Your task to perform on an android device: turn off picture-in-picture Image 0: 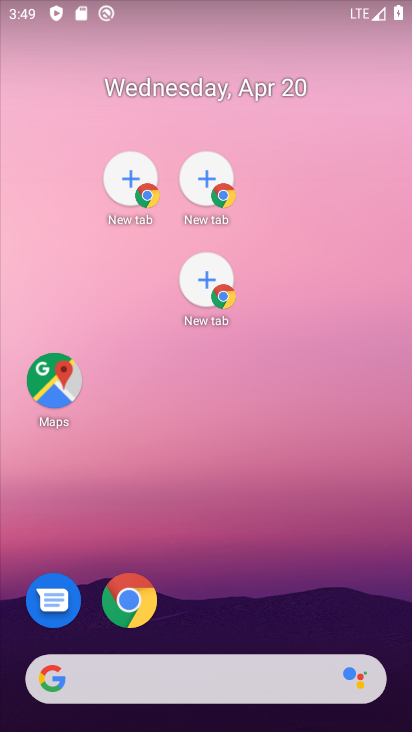
Step 0: click (205, 104)
Your task to perform on an android device: turn off picture-in-picture Image 1: 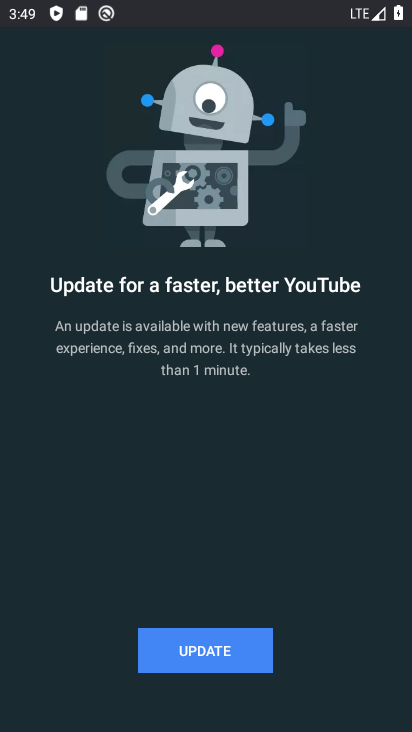
Step 1: press home button
Your task to perform on an android device: turn off picture-in-picture Image 2: 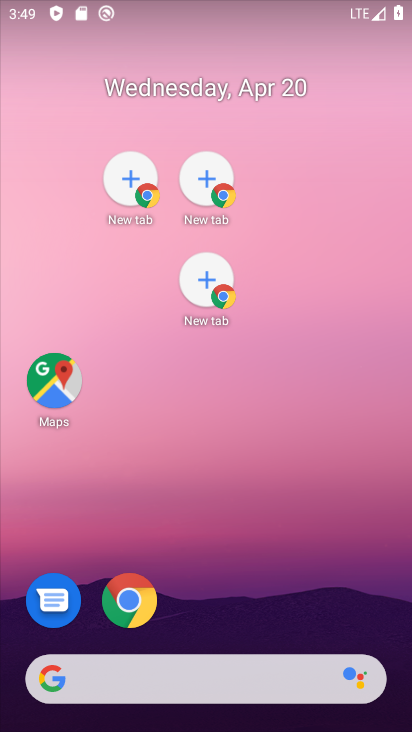
Step 2: drag from (116, 606) to (263, 401)
Your task to perform on an android device: turn off picture-in-picture Image 3: 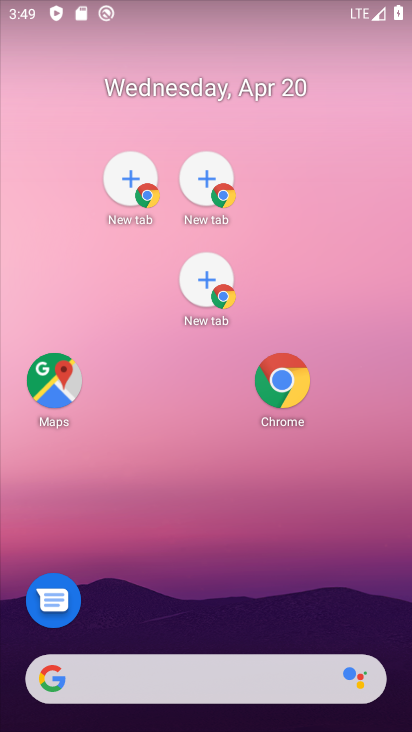
Step 3: drag from (272, 391) to (225, 181)
Your task to perform on an android device: turn off picture-in-picture Image 4: 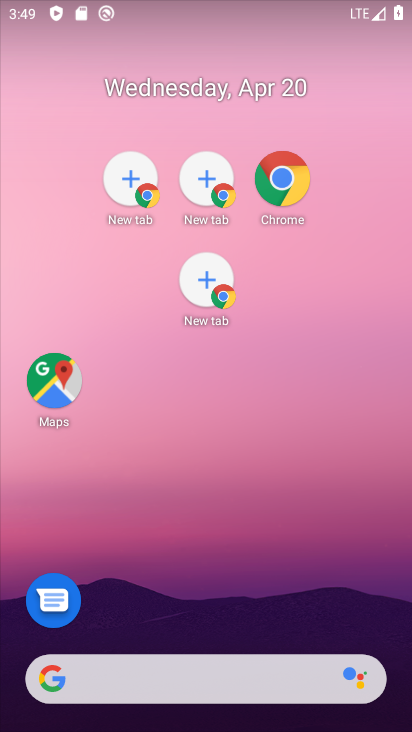
Step 4: drag from (292, 175) to (229, 373)
Your task to perform on an android device: turn off picture-in-picture Image 5: 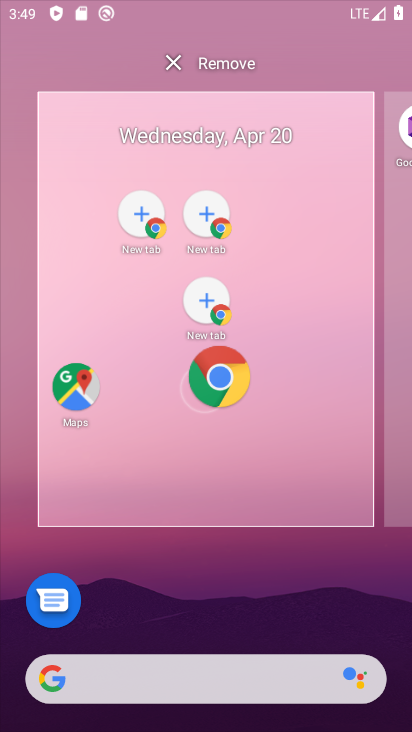
Step 5: click (229, 373)
Your task to perform on an android device: turn off picture-in-picture Image 6: 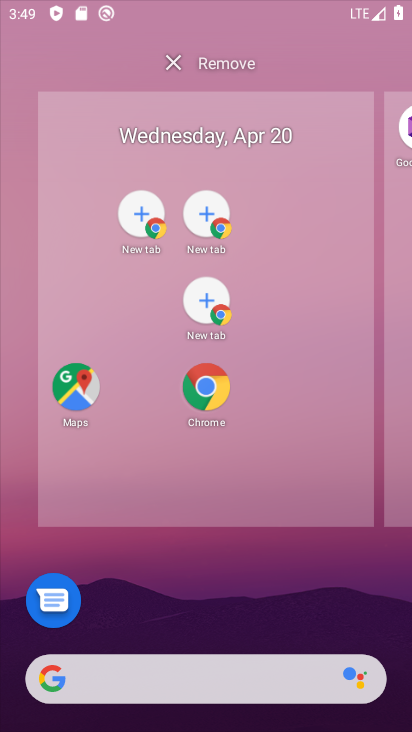
Step 6: click (229, 373)
Your task to perform on an android device: turn off picture-in-picture Image 7: 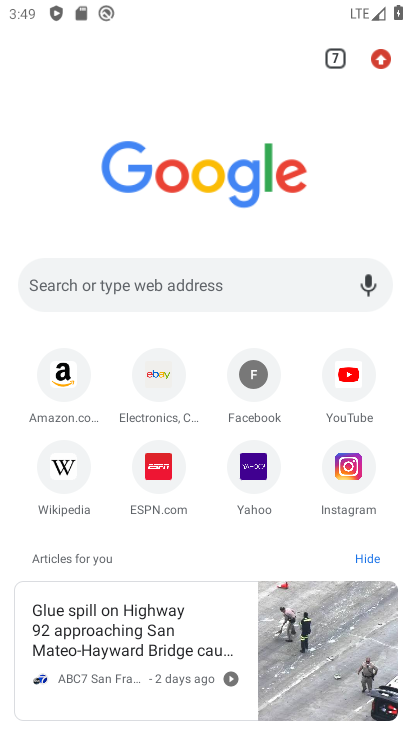
Step 7: press home button
Your task to perform on an android device: turn off picture-in-picture Image 8: 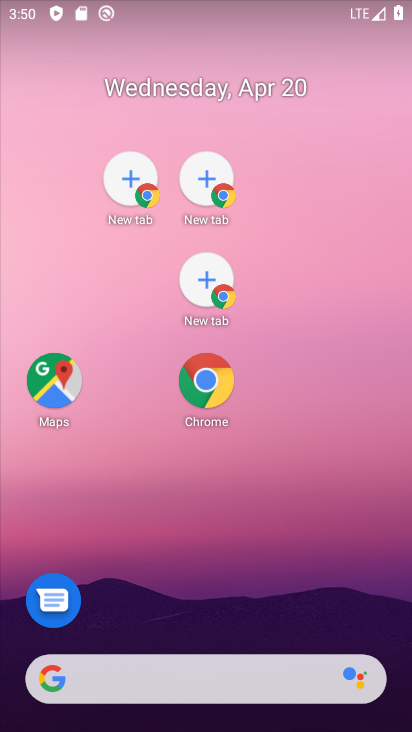
Step 8: click (189, 380)
Your task to perform on an android device: turn off picture-in-picture Image 9: 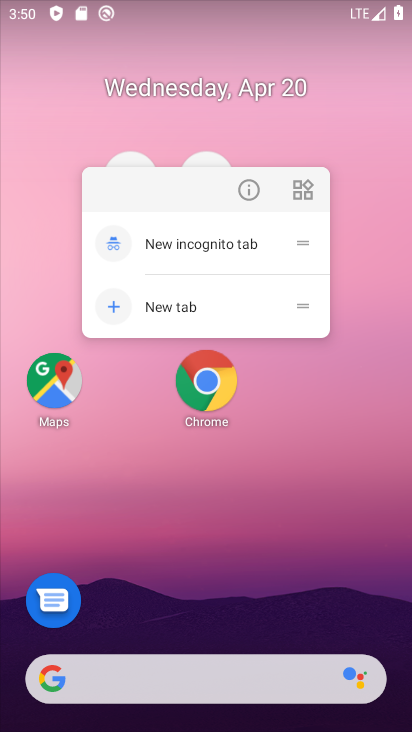
Step 9: click (205, 376)
Your task to perform on an android device: turn off picture-in-picture Image 10: 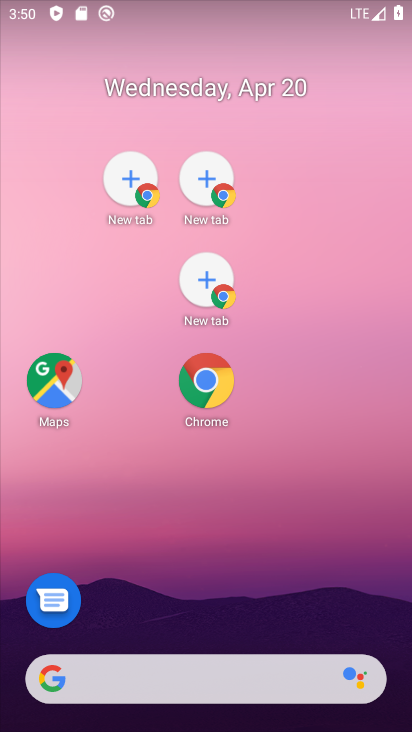
Step 10: drag from (212, 377) to (245, 188)
Your task to perform on an android device: turn off picture-in-picture Image 11: 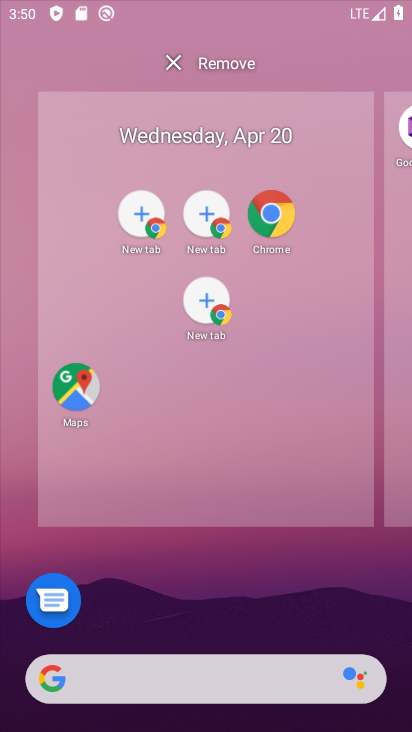
Step 11: click (245, 188)
Your task to perform on an android device: turn off picture-in-picture Image 12: 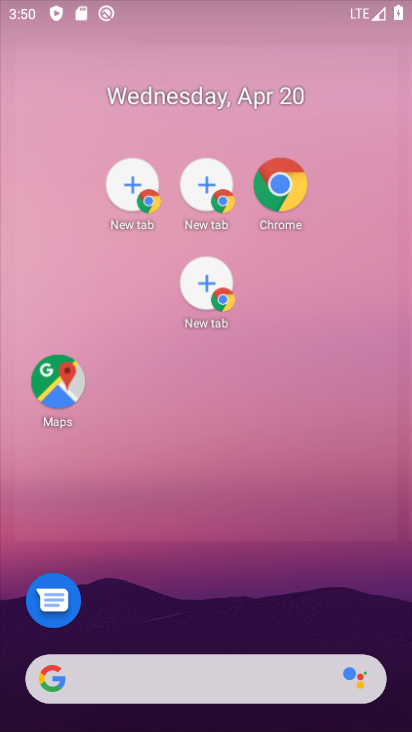
Step 12: click (244, 187)
Your task to perform on an android device: turn off picture-in-picture Image 13: 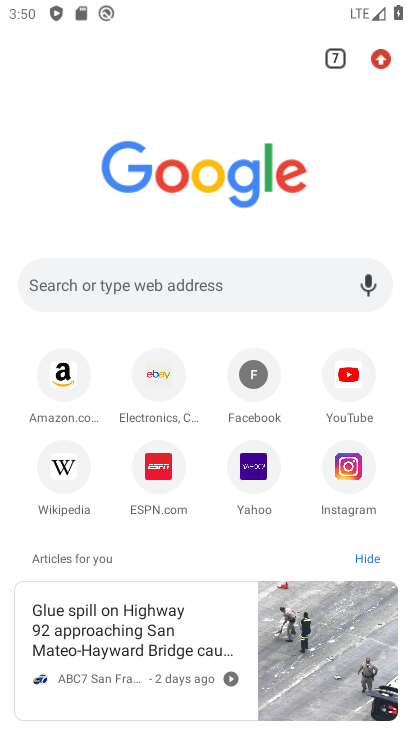
Step 13: press home button
Your task to perform on an android device: turn off picture-in-picture Image 14: 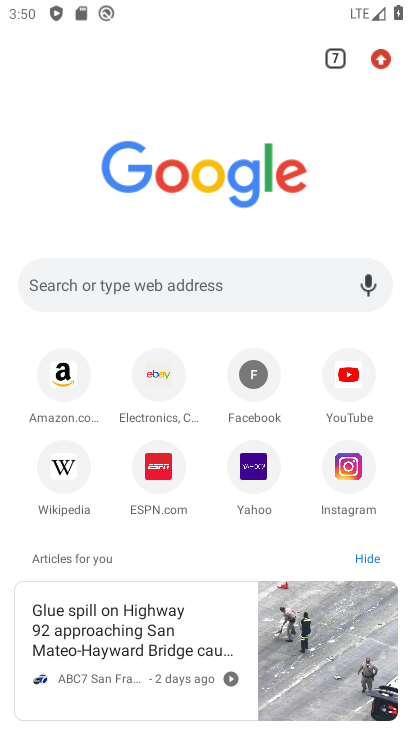
Step 14: press home button
Your task to perform on an android device: turn off picture-in-picture Image 15: 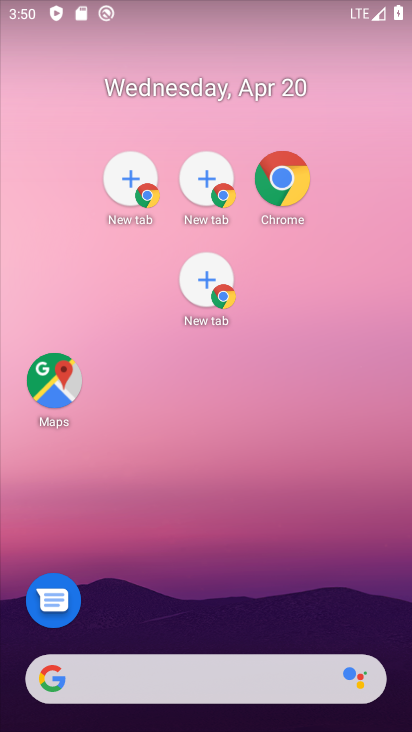
Step 15: drag from (273, 176) to (247, 369)
Your task to perform on an android device: turn off picture-in-picture Image 16: 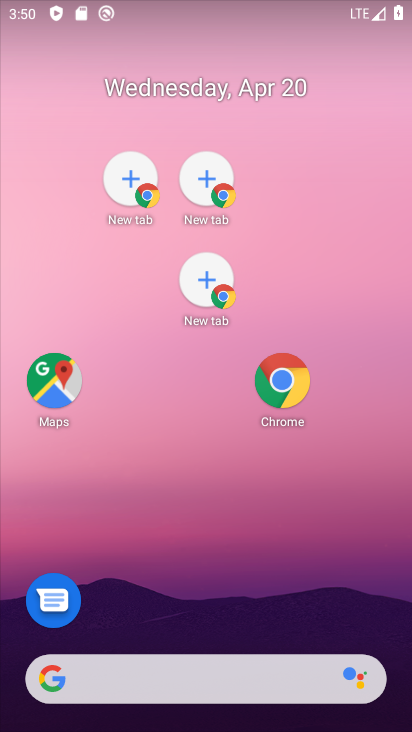
Step 16: click (276, 376)
Your task to perform on an android device: turn off picture-in-picture Image 17: 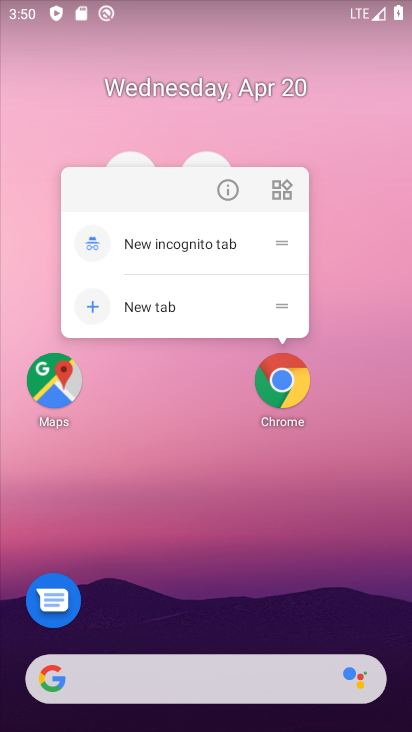
Step 17: click (227, 179)
Your task to perform on an android device: turn off picture-in-picture Image 18: 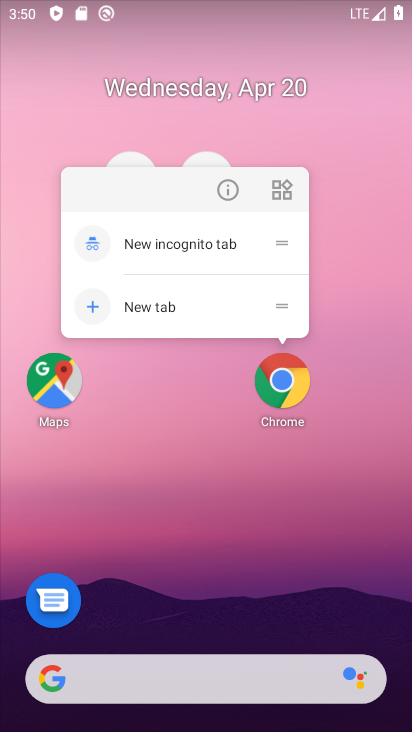
Step 18: click (228, 192)
Your task to perform on an android device: turn off picture-in-picture Image 19: 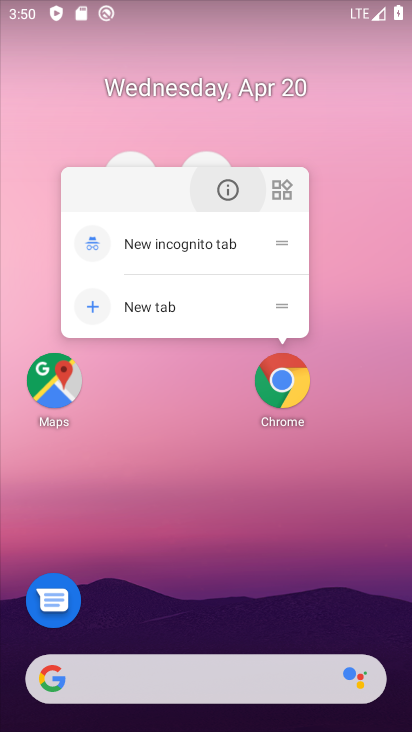
Step 19: click (228, 192)
Your task to perform on an android device: turn off picture-in-picture Image 20: 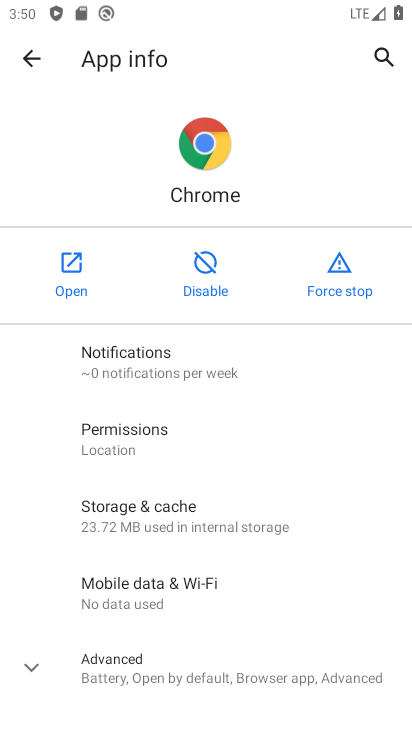
Step 20: click (113, 660)
Your task to perform on an android device: turn off picture-in-picture Image 21: 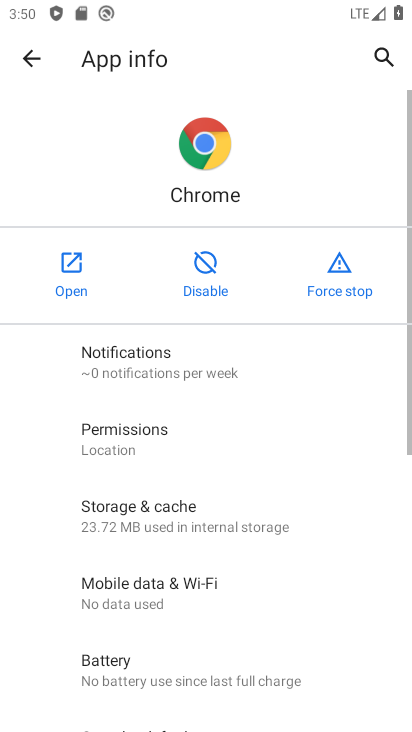
Step 21: drag from (199, 512) to (221, 186)
Your task to perform on an android device: turn off picture-in-picture Image 22: 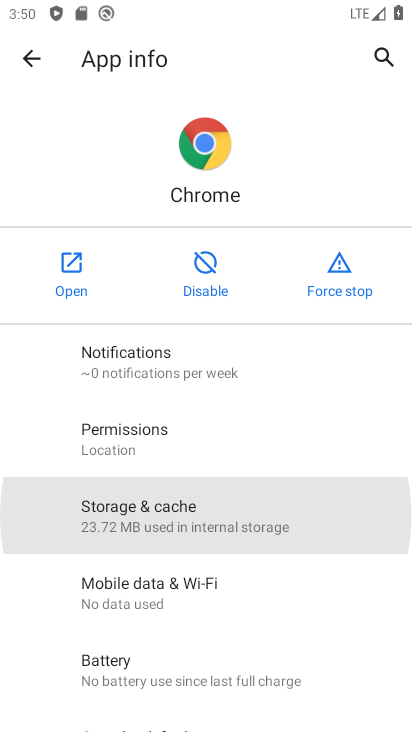
Step 22: drag from (231, 499) to (182, 200)
Your task to perform on an android device: turn off picture-in-picture Image 23: 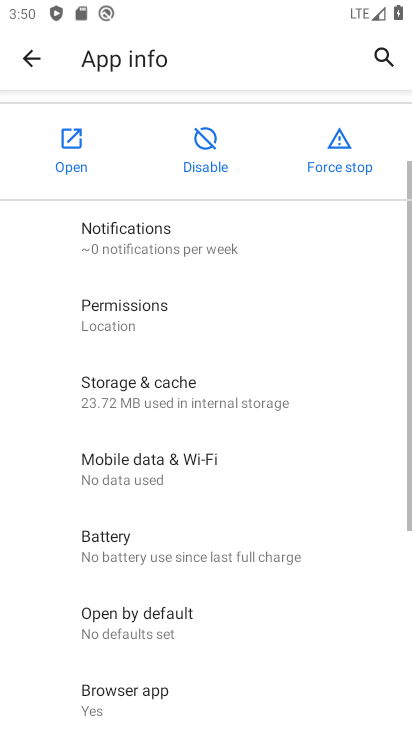
Step 23: drag from (173, 345) to (174, 235)
Your task to perform on an android device: turn off picture-in-picture Image 24: 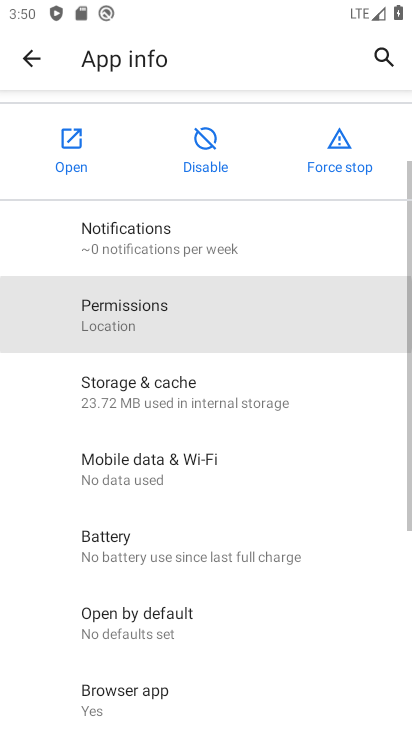
Step 24: drag from (156, 460) to (166, 214)
Your task to perform on an android device: turn off picture-in-picture Image 25: 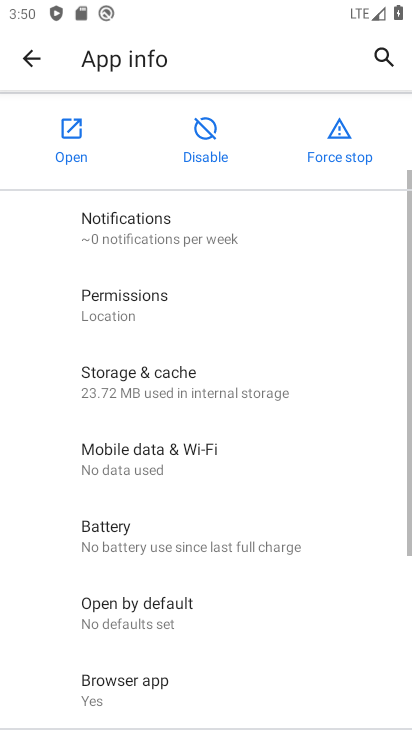
Step 25: drag from (151, 344) to (147, 85)
Your task to perform on an android device: turn off picture-in-picture Image 26: 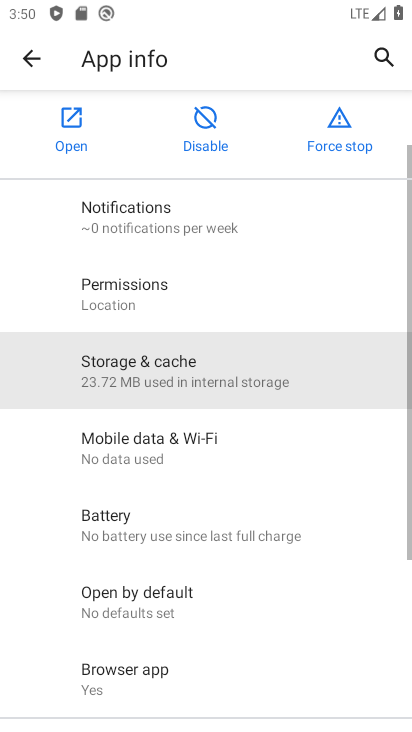
Step 26: drag from (126, 553) to (148, 327)
Your task to perform on an android device: turn off picture-in-picture Image 27: 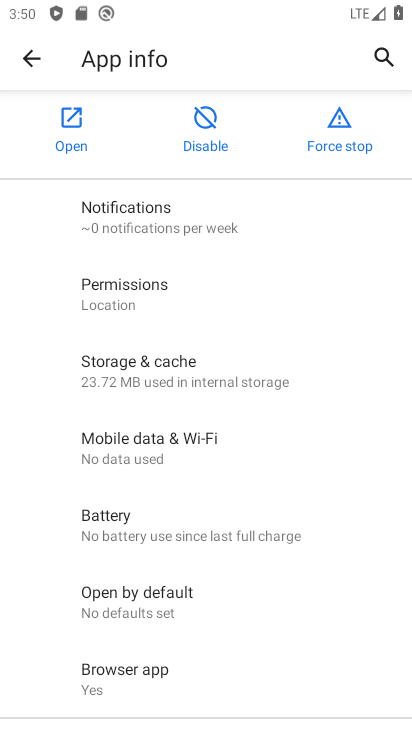
Step 27: drag from (138, 476) to (166, 173)
Your task to perform on an android device: turn off picture-in-picture Image 28: 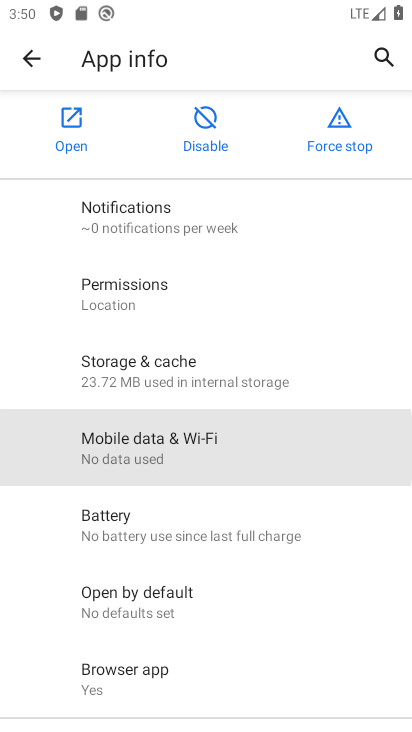
Step 28: drag from (128, 511) to (124, 160)
Your task to perform on an android device: turn off picture-in-picture Image 29: 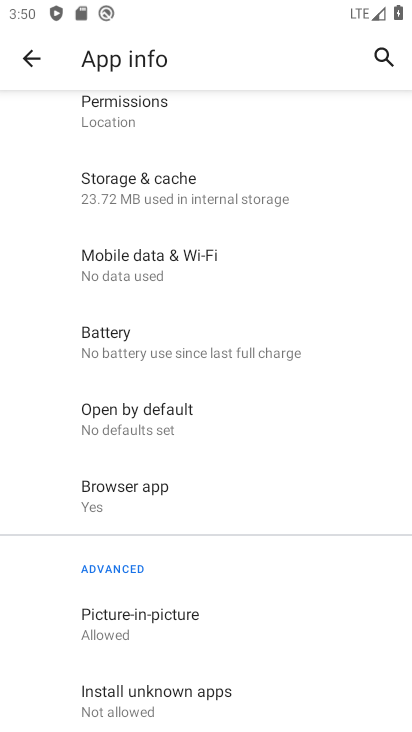
Step 29: click (106, 614)
Your task to perform on an android device: turn off picture-in-picture Image 30: 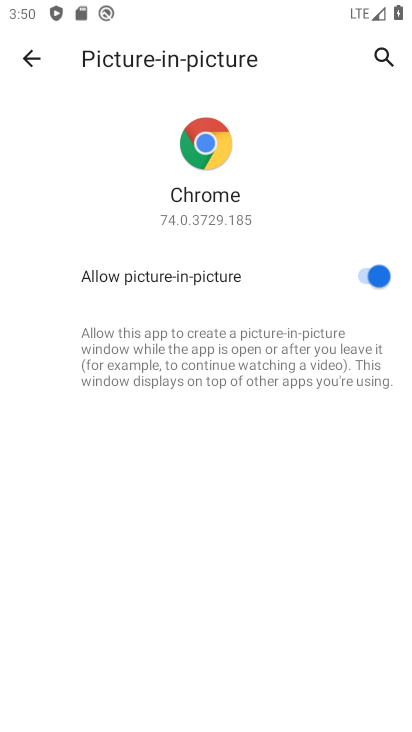
Step 30: click (377, 277)
Your task to perform on an android device: turn off picture-in-picture Image 31: 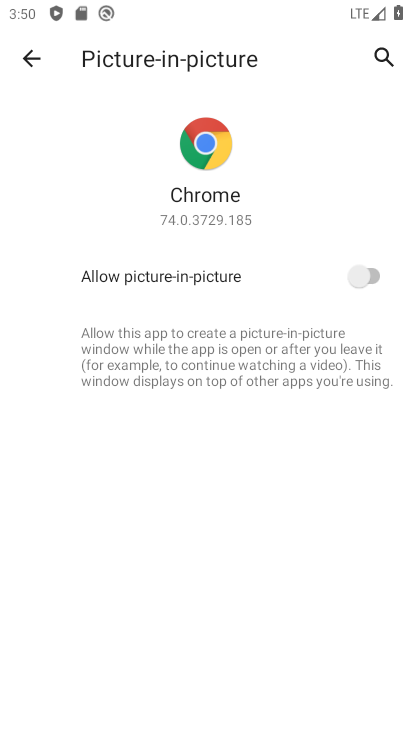
Step 31: task complete